Your task to perform on an android device: see sites visited before in the chrome app Image 0: 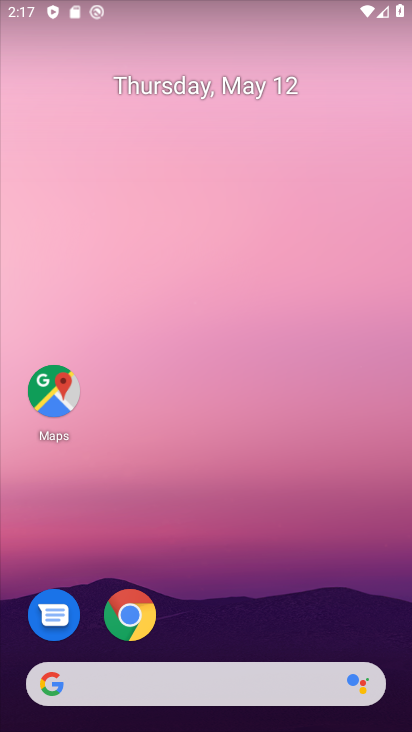
Step 0: press back button
Your task to perform on an android device: see sites visited before in the chrome app Image 1: 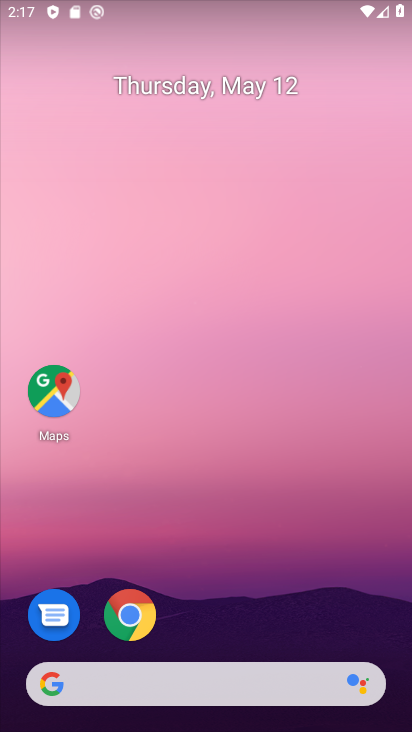
Step 1: click (129, 621)
Your task to perform on an android device: see sites visited before in the chrome app Image 2: 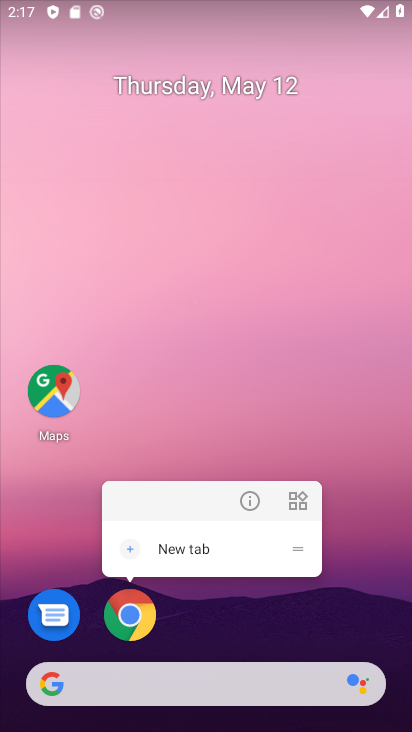
Step 2: click (129, 619)
Your task to perform on an android device: see sites visited before in the chrome app Image 3: 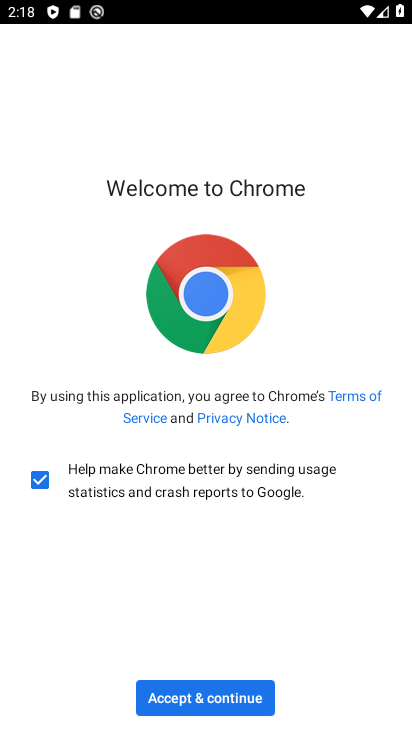
Step 3: click (145, 685)
Your task to perform on an android device: see sites visited before in the chrome app Image 4: 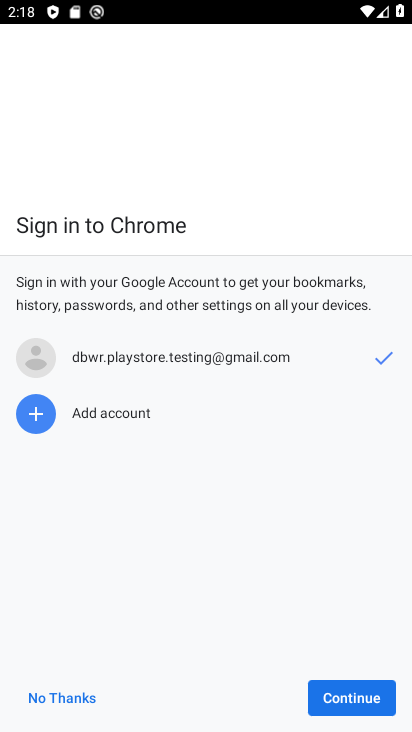
Step 4: click (45, 697)
Your task to perform on an android device: see sites visited before in the chrome app Image 5: 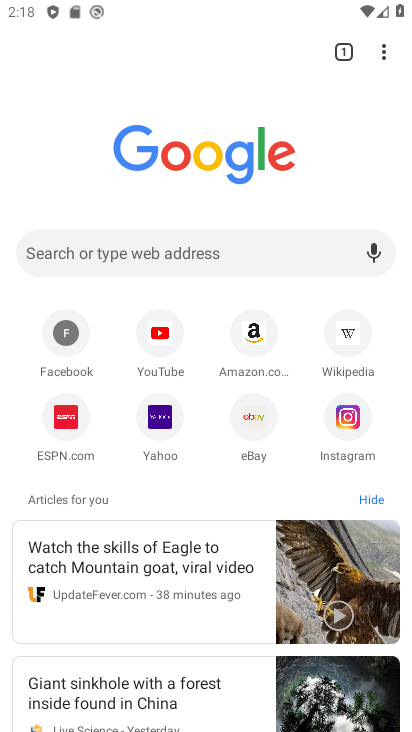
Step 5: click (379, 45)
Your task to perform on an android device: see sites visited before in the chrome app Image 6: 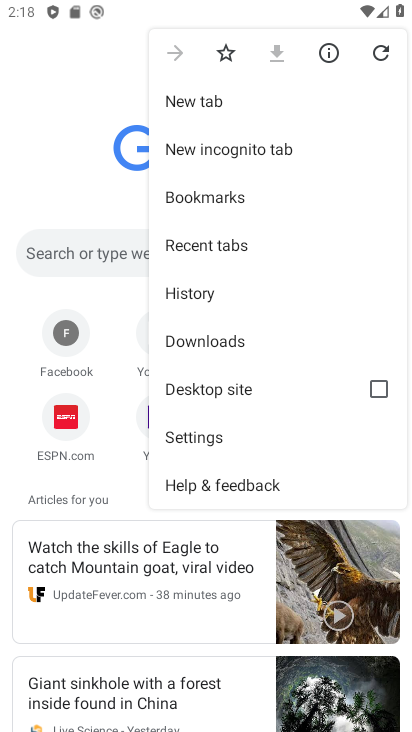
Step 6: click (204, 236)
Your task to perform on an android device: see sites visited before in the chrome app Image 7: 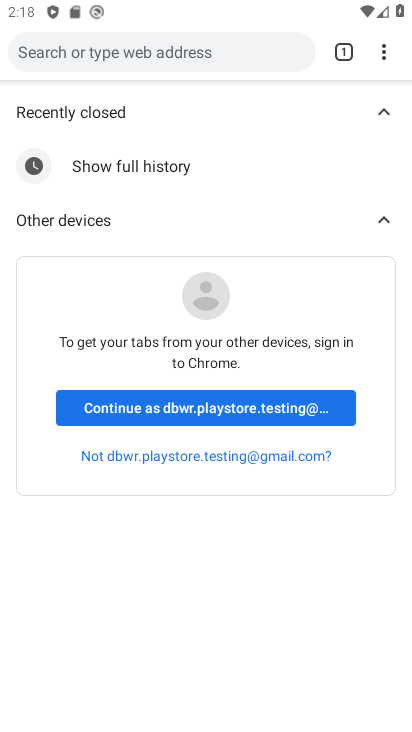
Step 7: task complete